Your task to perform on an android device: Go to Amazon Image 0: 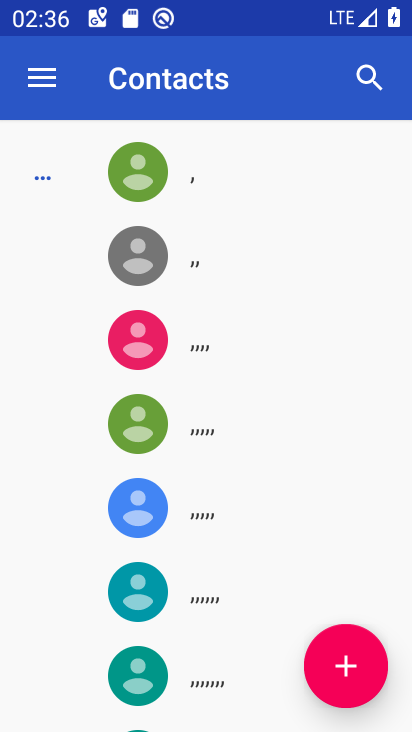
Step 0: press home button
Your task to perform on an android device: Go to Amazon Image 1: 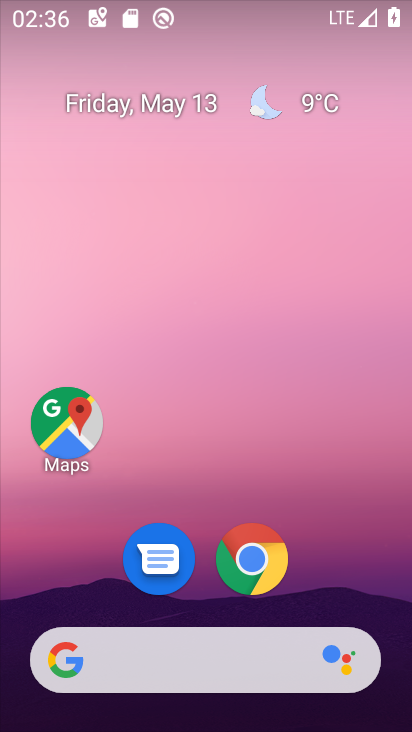
Step 1: click (258, 574)
Your task to perform on an android device: Go to Amazon Image 2: 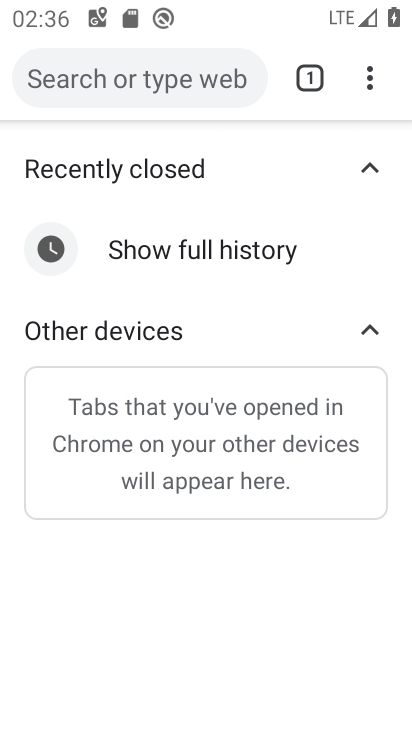
Step 2: click (201, 615)
Your task to perform on an android device: Go to Amazon Image 3: 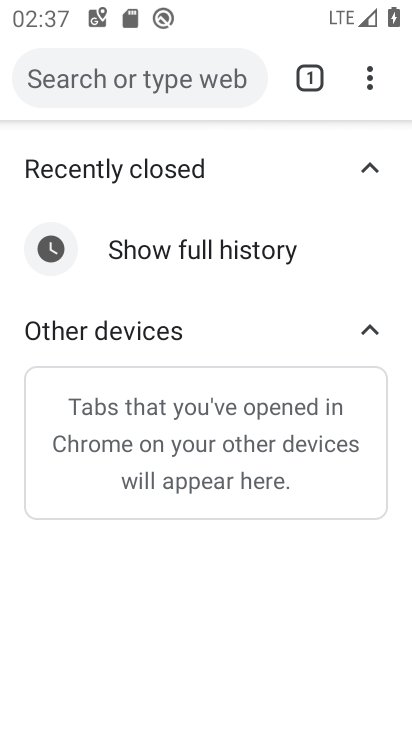
Step 3: click (246, 81)
Your task to perform on an android device: Go to Amazon Image 4: 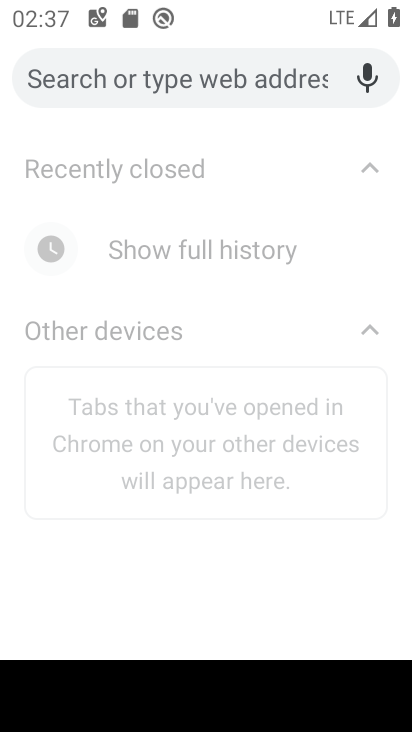
Step 4: type "Amazon"
Your task to perform on an android device: Go to Amazon Image 5: 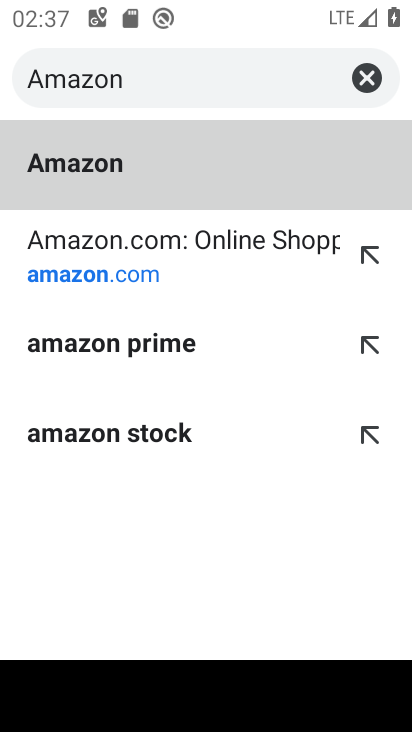
Step 5: click (99, 163)
Your task to perform on an android device: Go to Amazon Image 6: 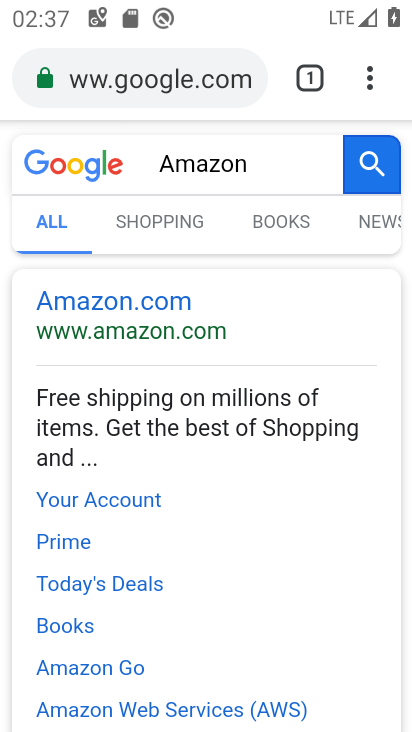
Step 6: task complete